Your task to perform on an android device: Go to settings Image 0: 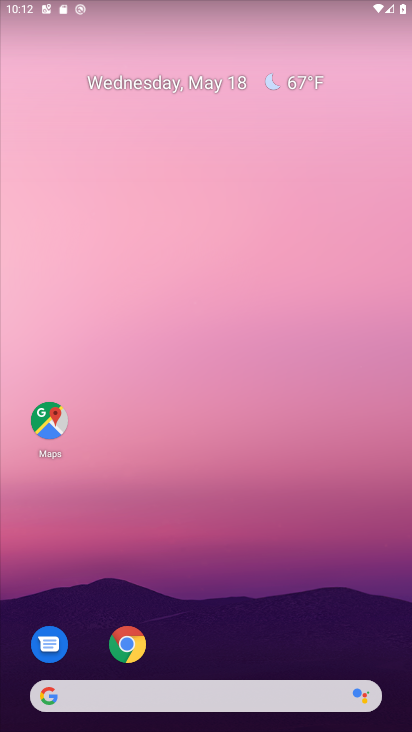
Step 0: drag from (228, 605) to (160, 49)
Your task to perform on an android device: Go to settings Image 1: 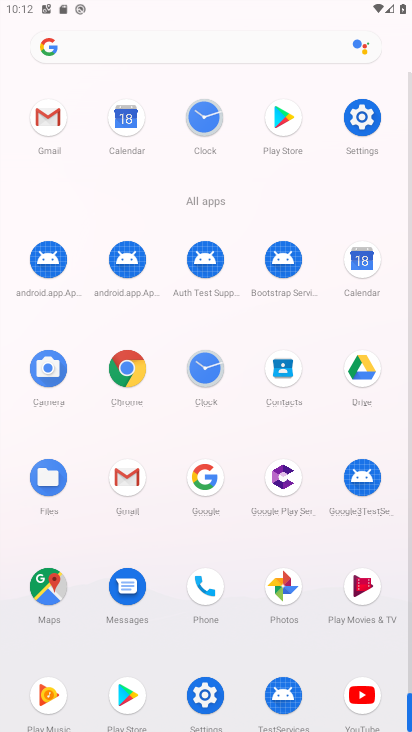
Step 1: click (362, 118)
Your task to perform on an android device: Go to settings Image 2: 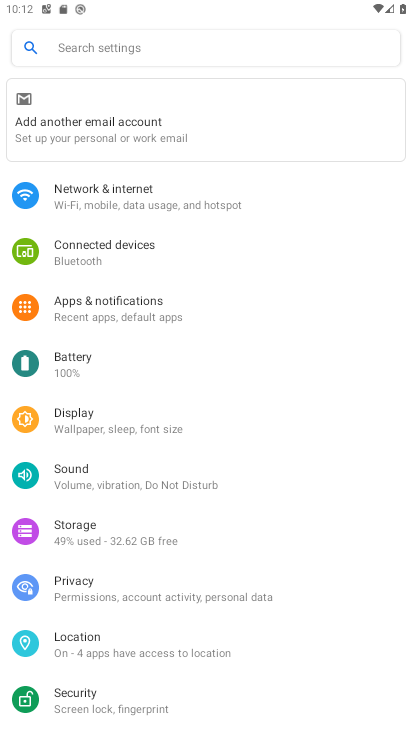
Step 2: task complete